Your task to perform on an android device: Go to Google maps Image 0: 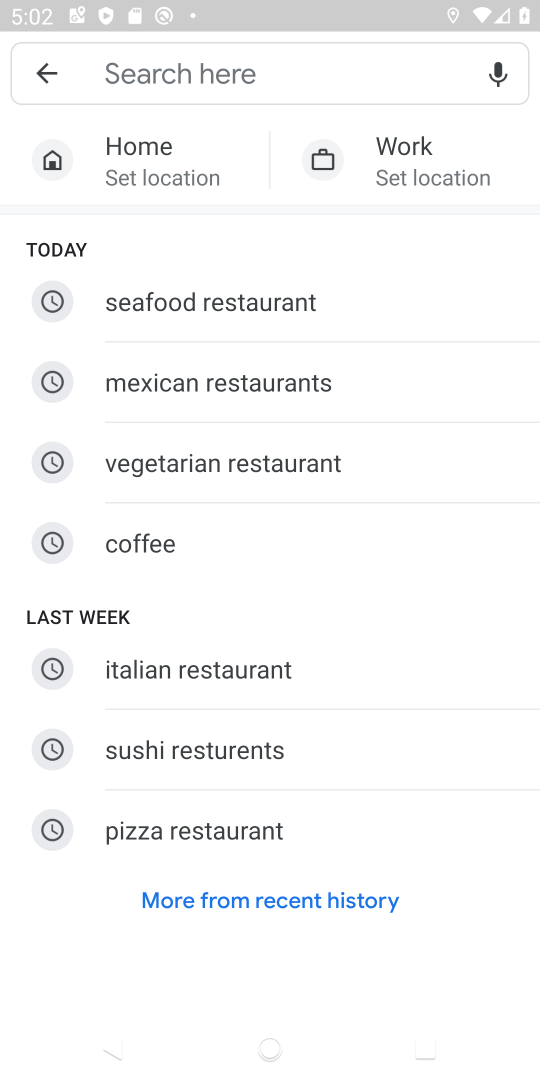
Step 0: press home button
Your task to perform on an android device: Go to Google maps Image 1: 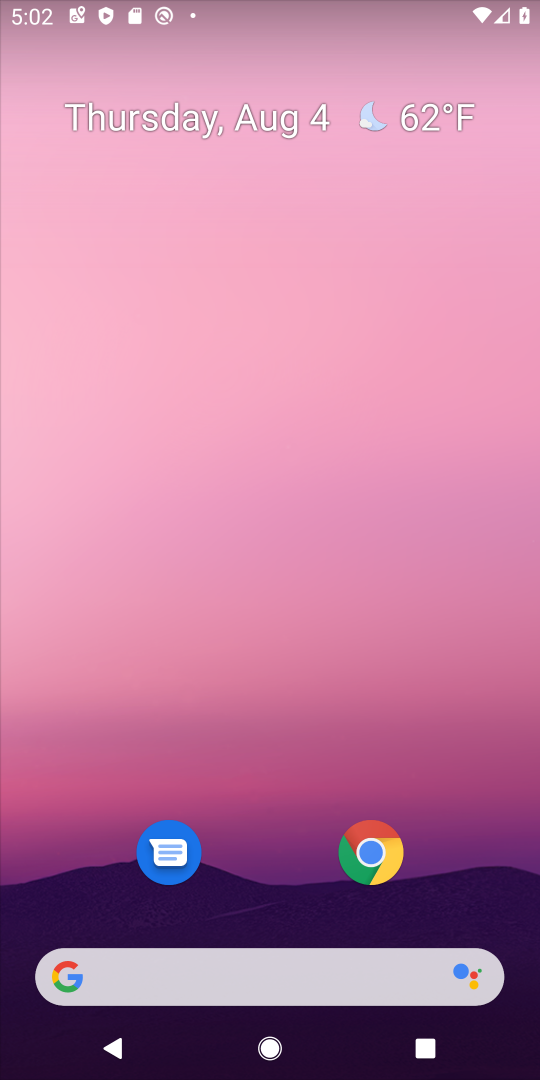
Step 1: drag from (266, 766) to (300, 202)
Your task to perform on an android device: Go to Google maps Image 2: 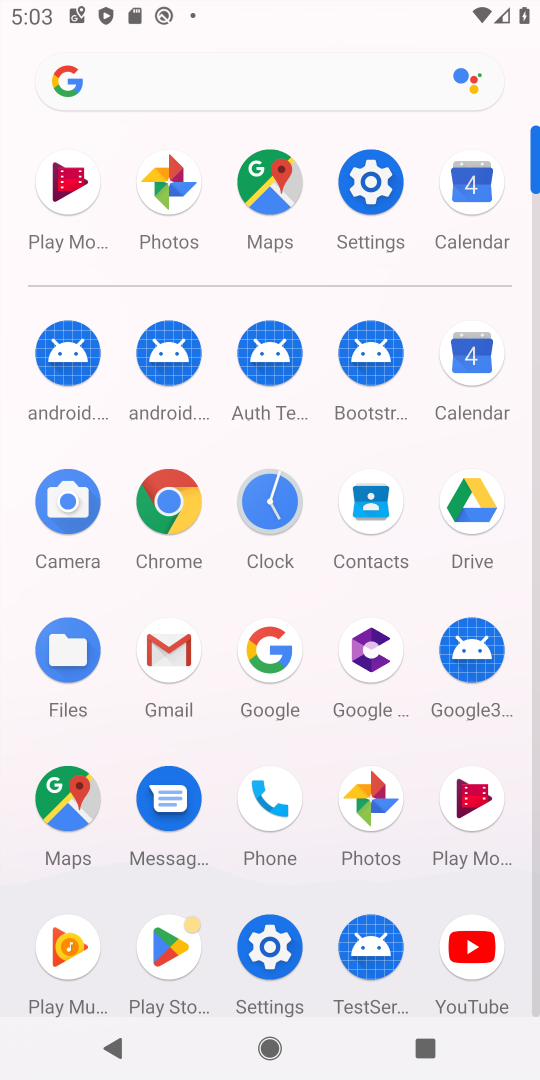
Step 2: click (45, 788)
Your task to perform on an android device: Go to Google maps Image 3: 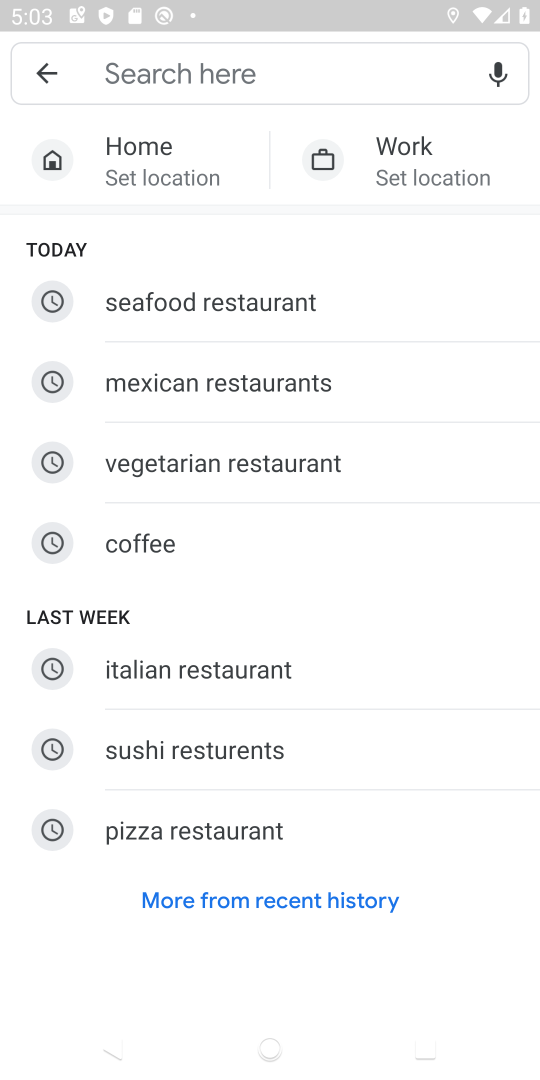
Step 3: click (46, 74)
Your task to perform on an android device: Go to Google maps Image 4: 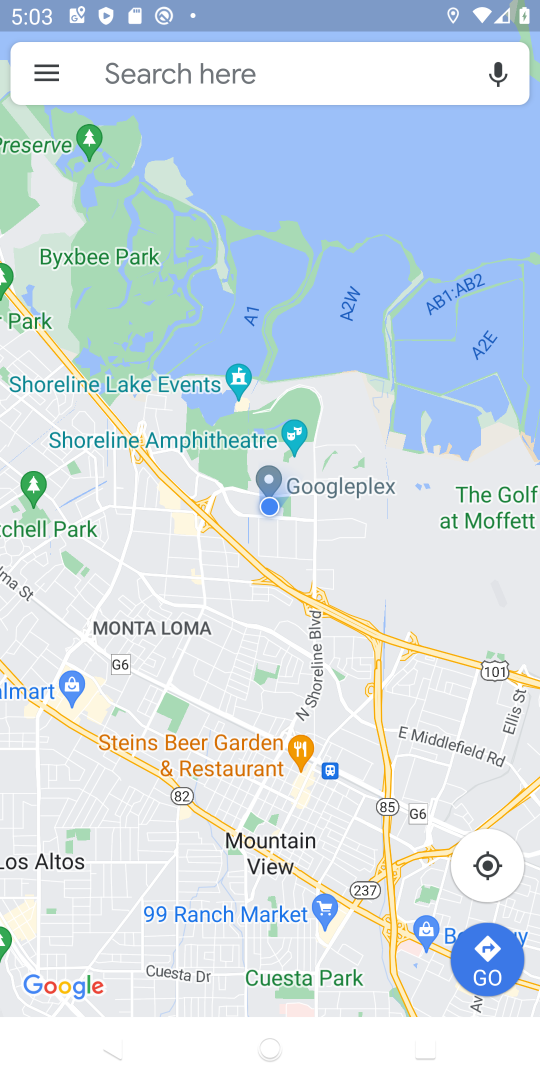
Step 4: task complete